Your task to perform on an android device: Show me productivity apps on the Play Store Image 0: 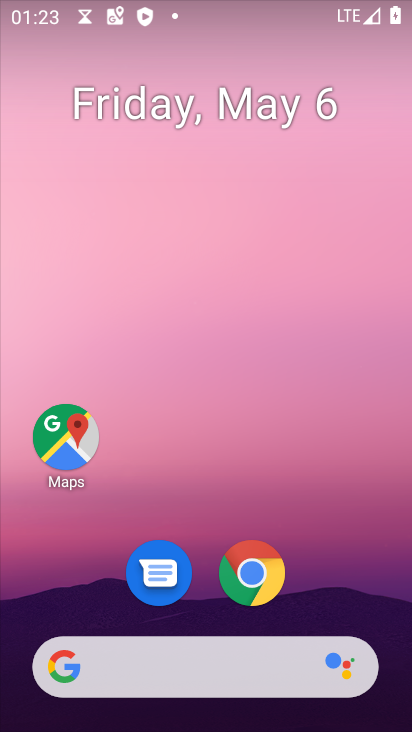
Step 0: drag from (320, 582) to (333, 209)
Your task to perform on an android device: Show me productivity apps on the Play Store Image 1: 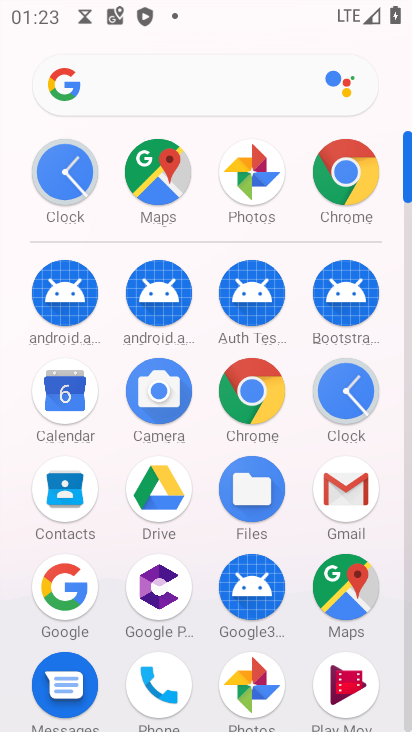
Step 1: drag from (208, 608) to (229, 387)
Your task to perform on an android device: Show me productivity apps on the Play Store Image 2: 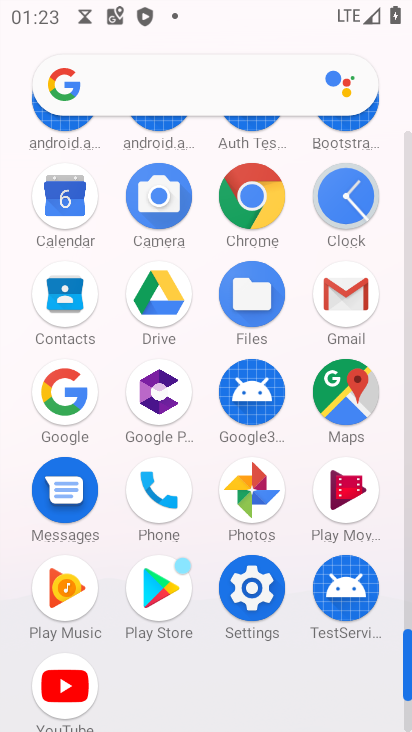
Step 2: click (147, 589)
Your task to perform on an android device: Show me productivity apps on the Play Store Image 3: 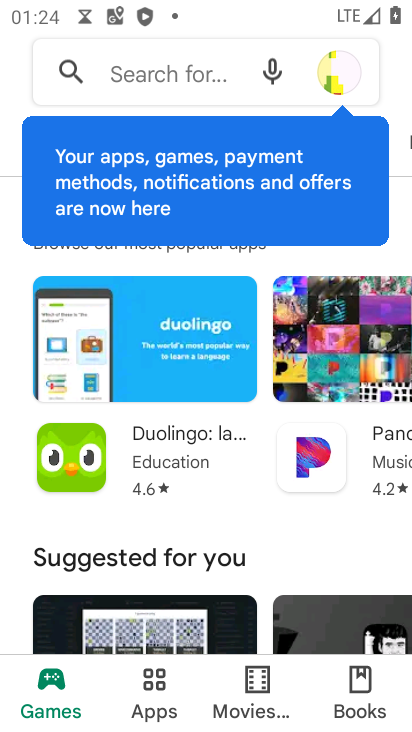
Step 3: click (147, 684)
Your task to perform on an android device: Show me productivity apps on the Play Store Image 4: 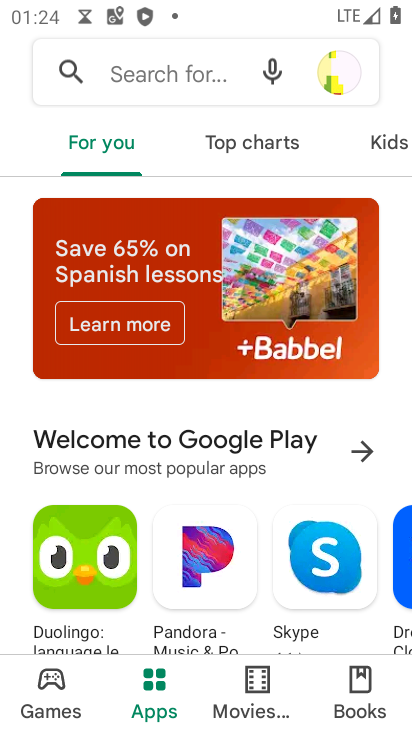
Step 4: task complete